Your task to perform on an android device: change your default location settings in chrome Image 0: 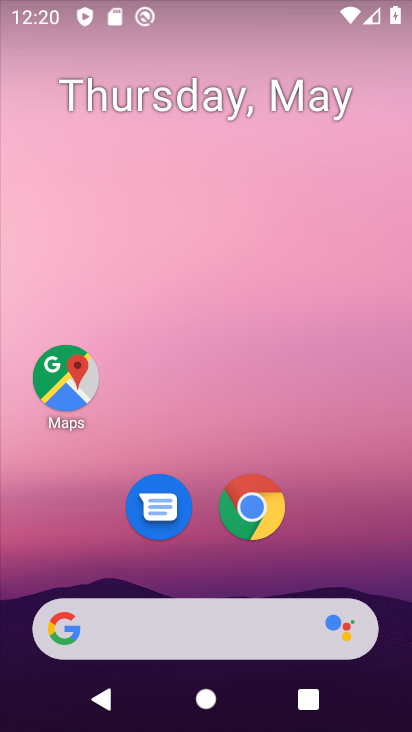
Step 0: drag from (187, 605) to (177, 315)
Your task to perform on an android device: change your default location settings in chrome Image 1: 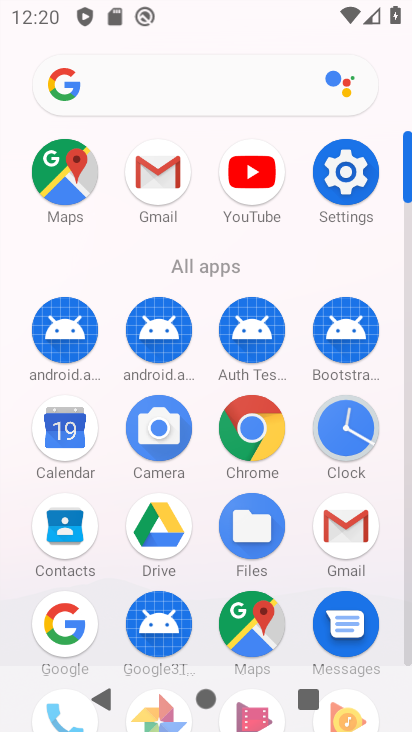
Step 1: click (226, 427)
Your task to perform on an android device: change your default location settings in chrome Image 2: 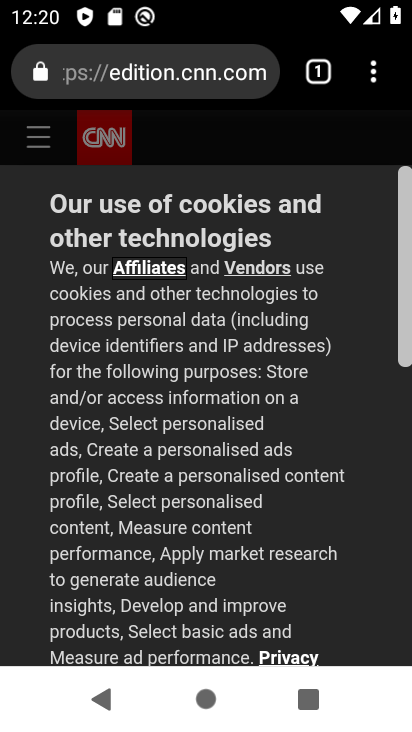
Step 2: click (370, 73)
Your task to perform on an android device: change your default location settings in chrome Image 3: 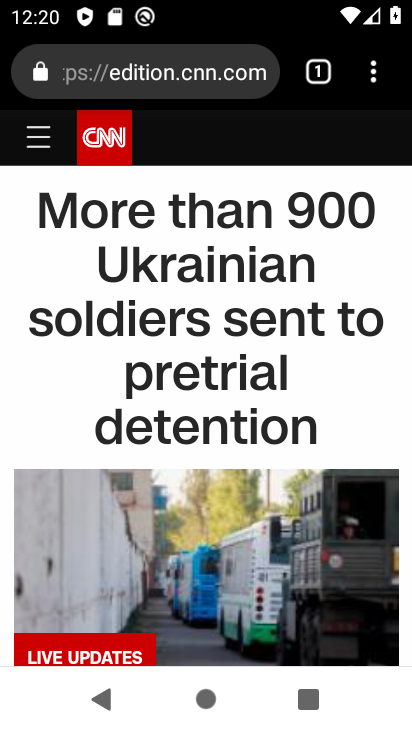
Step 3: click (377, 84)
Your task to perform on an android device: change your default location settings in chrome Image 4: 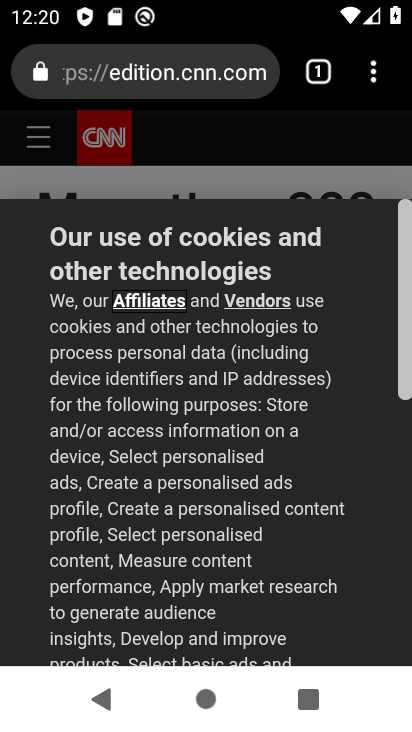
Step 4: click (378, 69)
Your task to perform on an android device: change your default location settings in chrome Image 5: 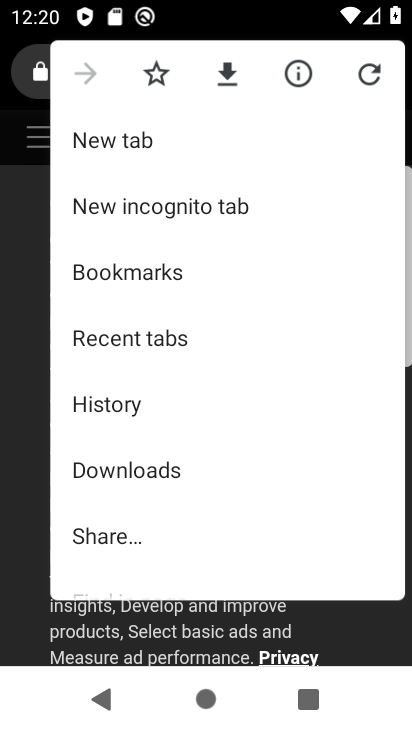
Step 5: drag from (156, 557) to (157, 156)
Your task to perform on an android device: change your default location settings in chrome Image 6: 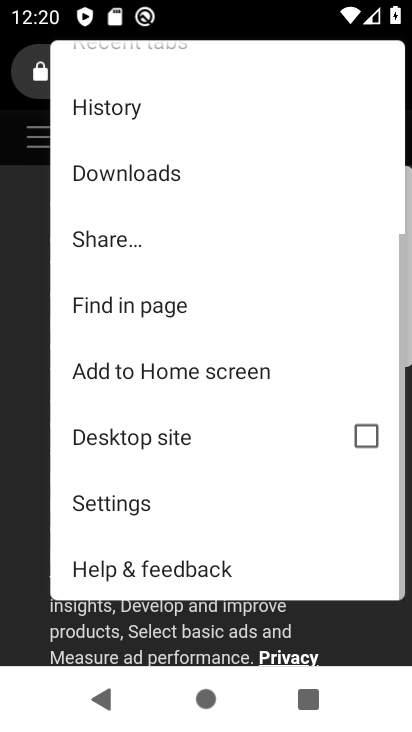
Step 6: click (88, 495)
Your task to perform on an android device: change your default location settings in chrome Image 7: 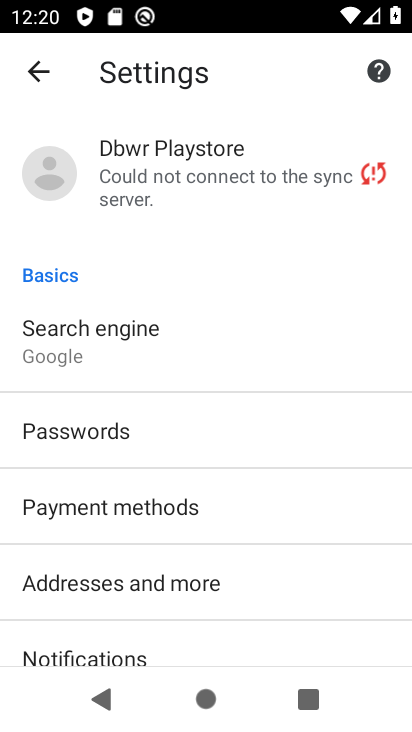
Step 7: drag from (133, 626) to (156, 374)
Your task to perform on an android device: change your default location settings in chrome Image 8: 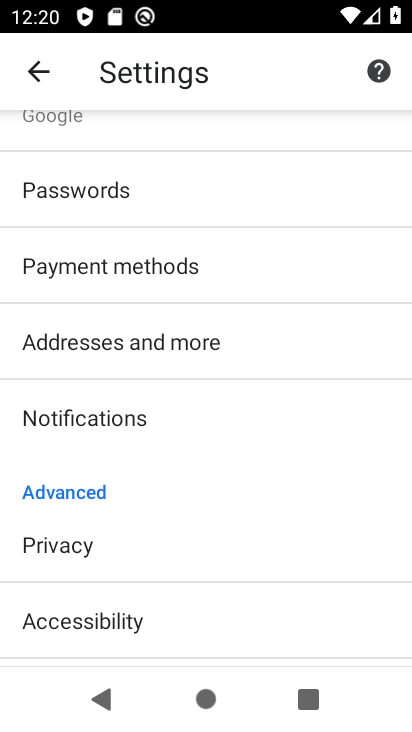
Step 8: drag from (174, 619) to (211, 365)
Your task to perform on an android device: change your default location settings in chrome Image 9: 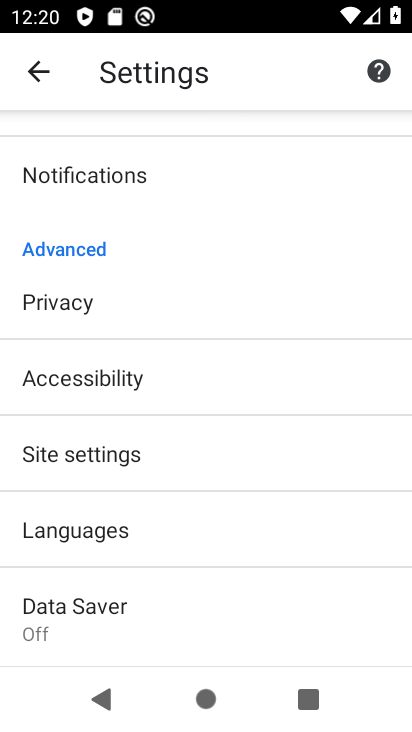
Step 9: drag from (67, 592) to (83, 440)
Your task to perform on an android device: change your default location settings in chrome Image 10: 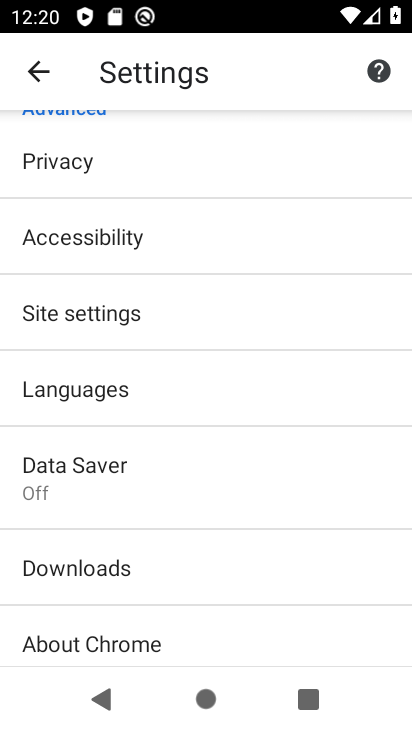
Step 10: click (84, 292)
Your task to perform on an android device: change your default location settings in chrome Image 11: 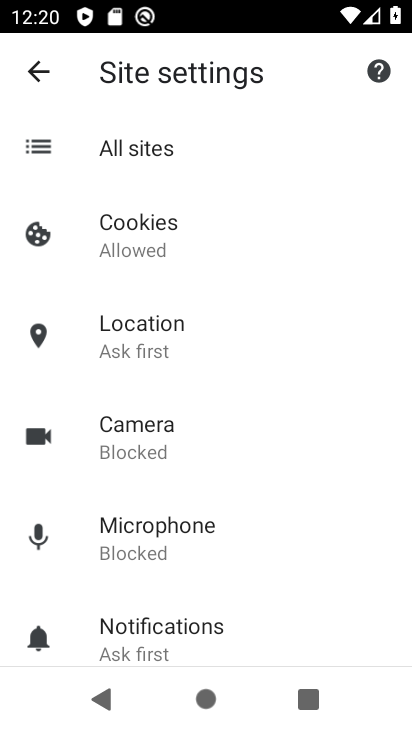
Step 11: click (163, 351)
Your task to perform on an android device: change your default location settings in chrome Image 12: 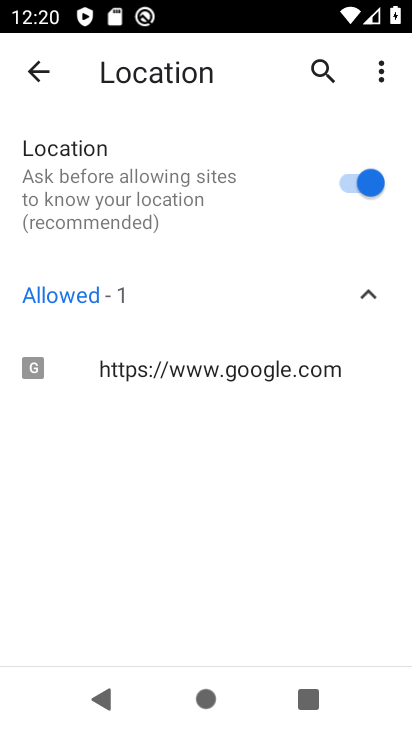
Step 12: click (352, 183)
Your task to perform on an android device: change your default location settings in chrome Image 13: 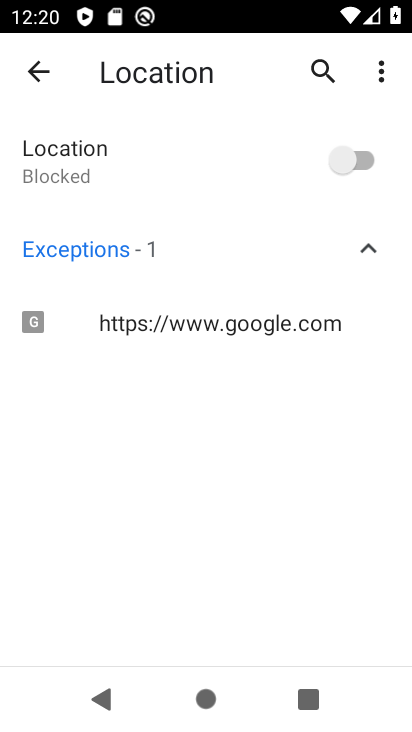
Step 13: task complete